Your task to perform on an android device: toggle show notifications on the lock screen Image 0: 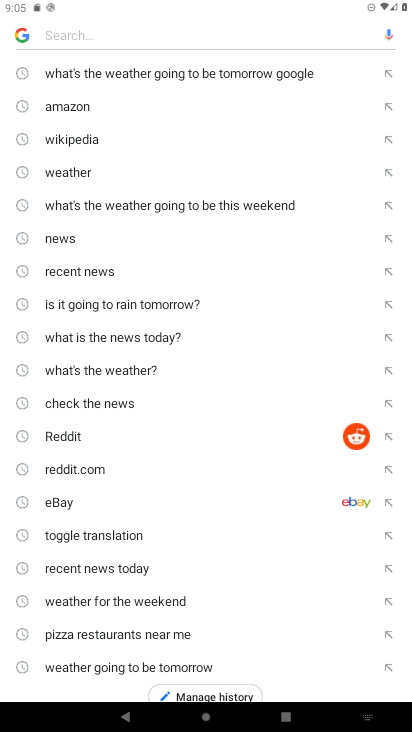
Step 0: press home button
Your task to perform on an android device: toggle show notifications on the lock screen Image 1: 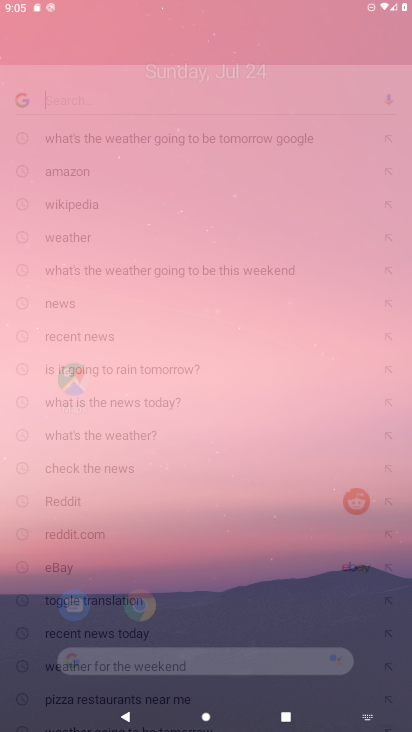
Step 1: drag from (389, 669) to (115, 55)
Your task to perform on an android device: toggle show notifications on the lock screen Image 2: 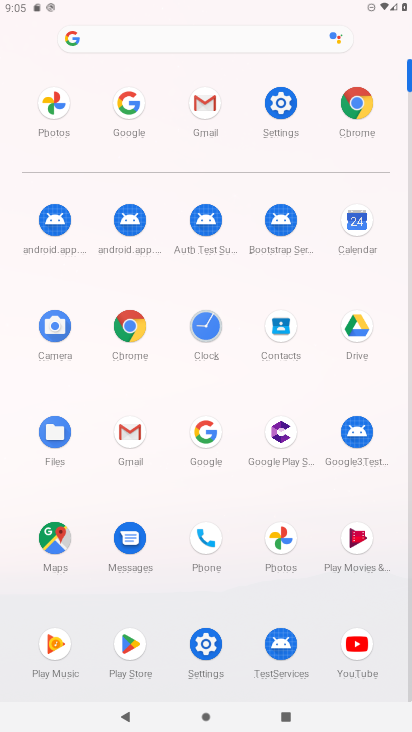
Step 2: click (193, 650)
Your task to perform on an android device: toggle show notifications on the lock screen Image 3: 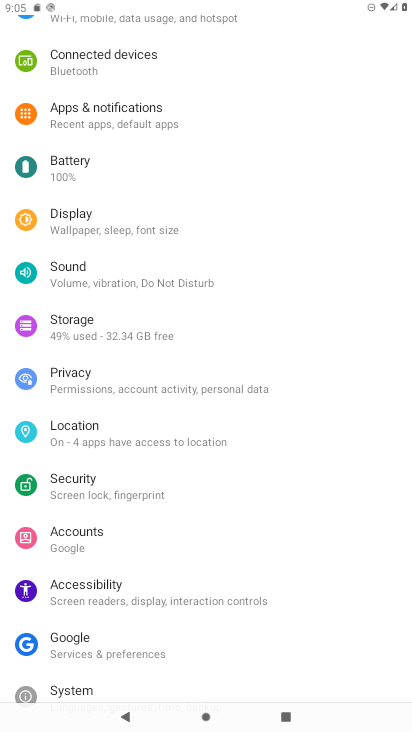
Step 3: click (102, 119)
Your task to perform on an android device: toggle show notifications on the lock screen Image 4: 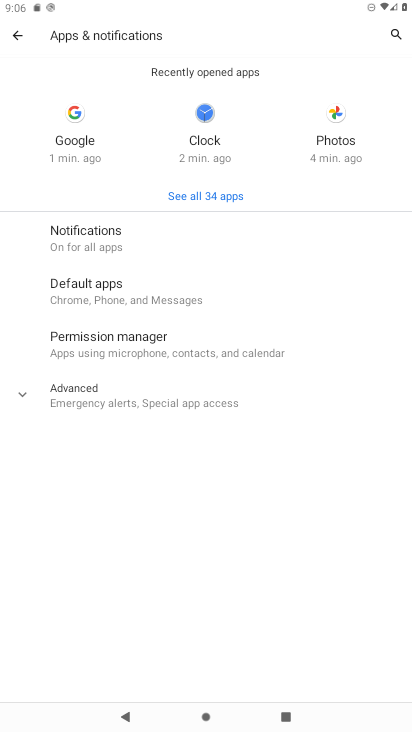
Step 4: click (72, 395)
Your task to perform on an android device: toggle show notifications on the lock screen Image 5: 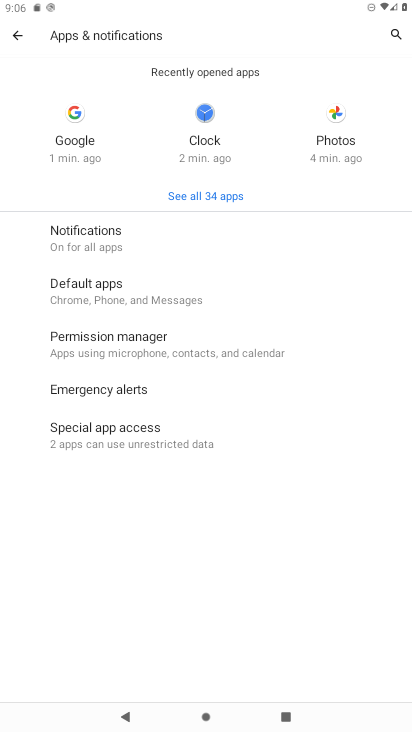
Step 5: click (117, 218)
Your task to perform on an android device: toggle show notifications on the lock screen Image 6: 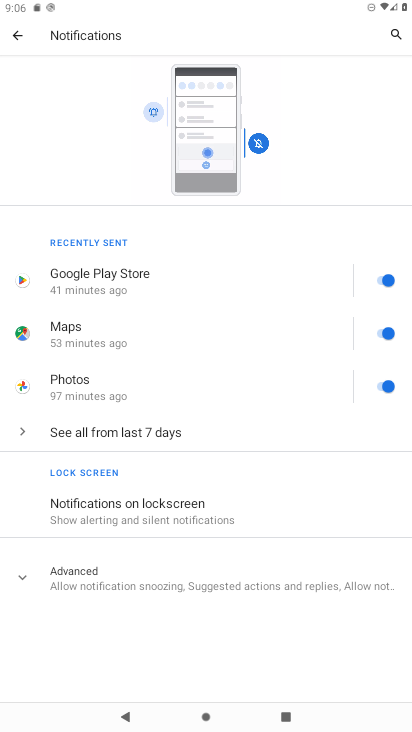
Step 6: click (93, 580)
Your task to perform on an android device: toggle show notifications on the lock screen Image 7: 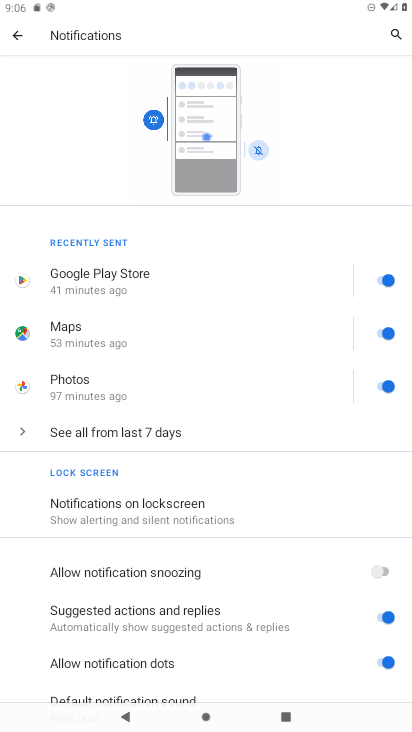
Step 7: click (156, 496)
Your task to perform on an android device: toggle show notifications on the lock screen Image 8: 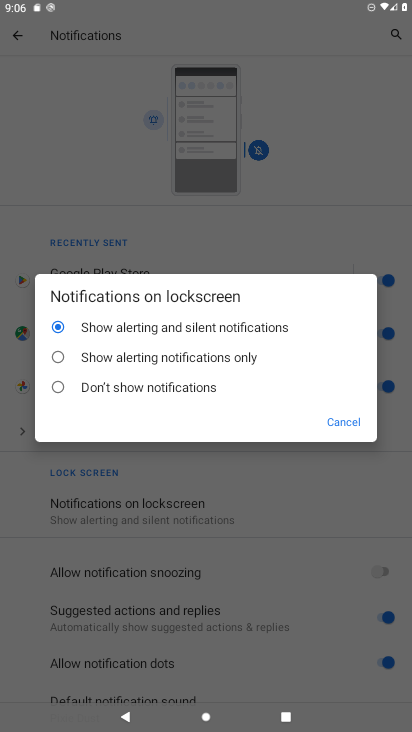
Step 8: click (67, 393)
Your task to perform on an android device: toggle show notifications on the lock screen Image 9: 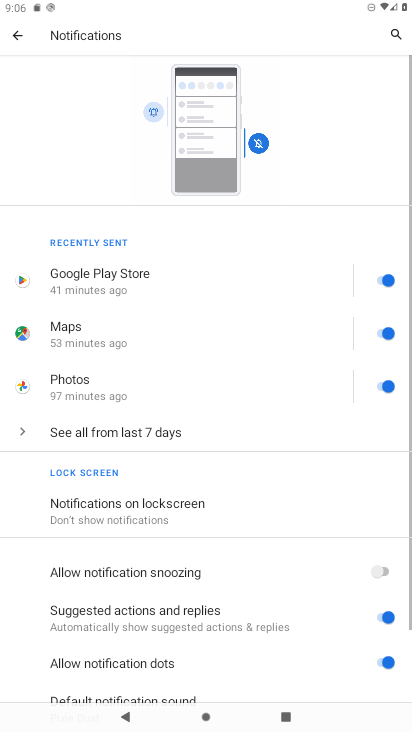
Step 9: task complete